Your task to perform on an android device: Is it going to rain tomorrow? Image 0: 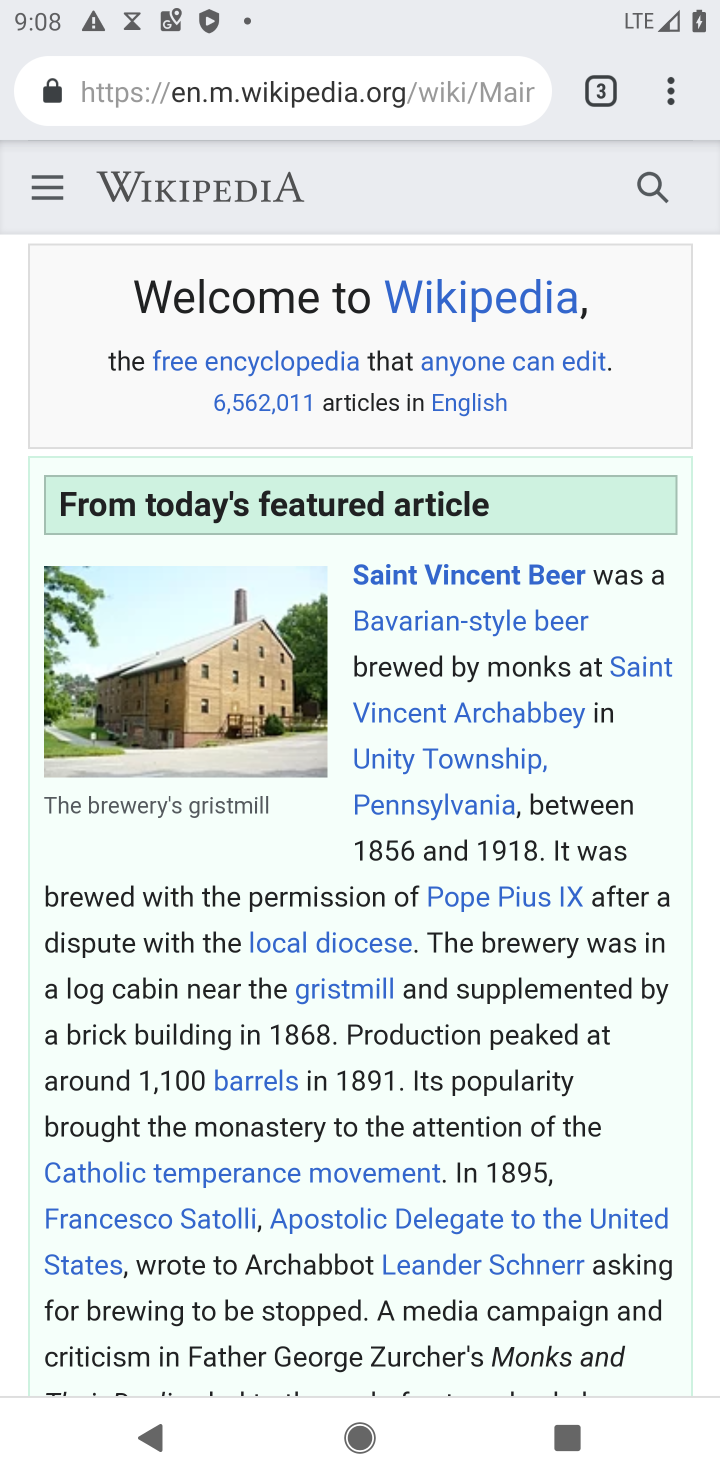
Step 0: press back button
Your task to perform on an android device: Is it going to rain tomorrow? Image 1: 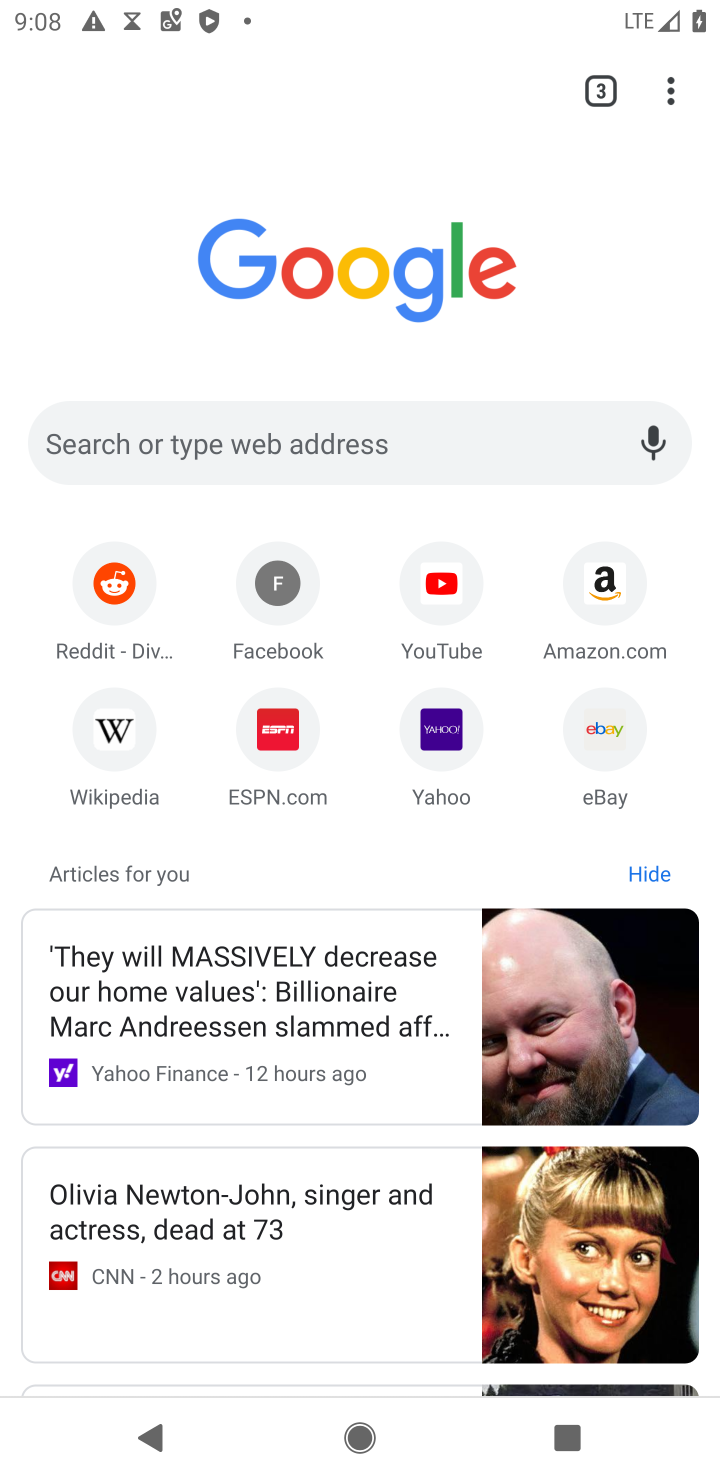
Step 1: press back button
Your task to perform on an android device: Is it going to rain tomorrow? Image 2: 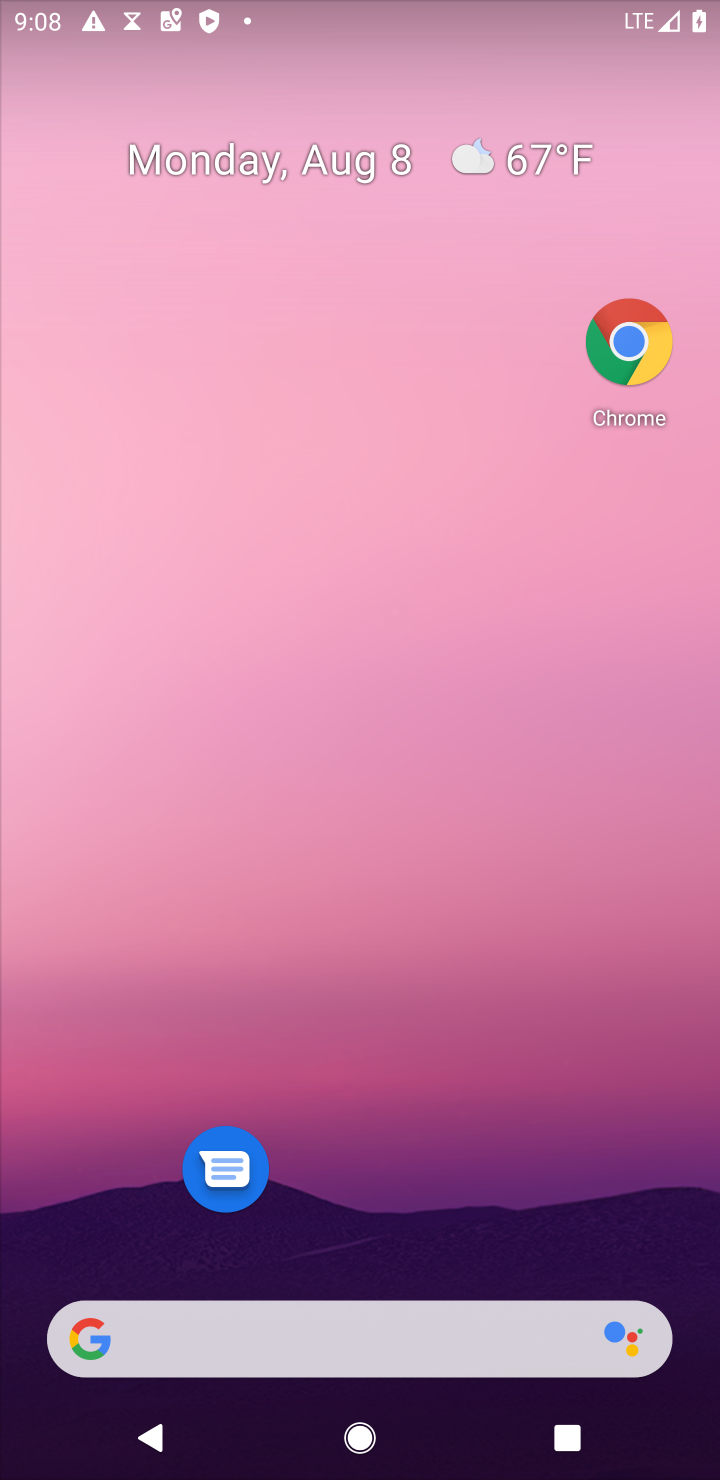
Step 2: press back button
Your task to perform on an android device: Is it going to rain tomorrow? Image 3: 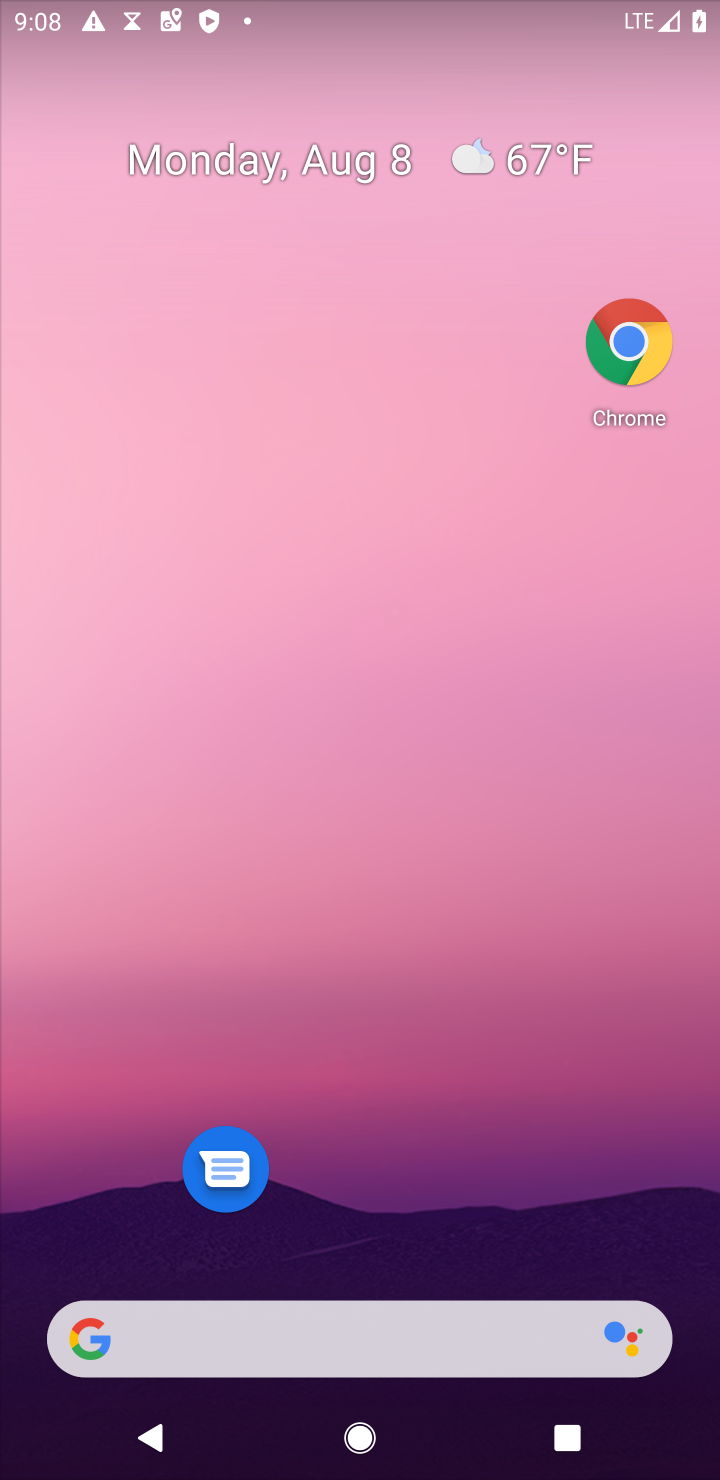
Step 3: click (286, 1318)
Your task to perform on an android device: Is it going to rain tomorrow? Image 4: 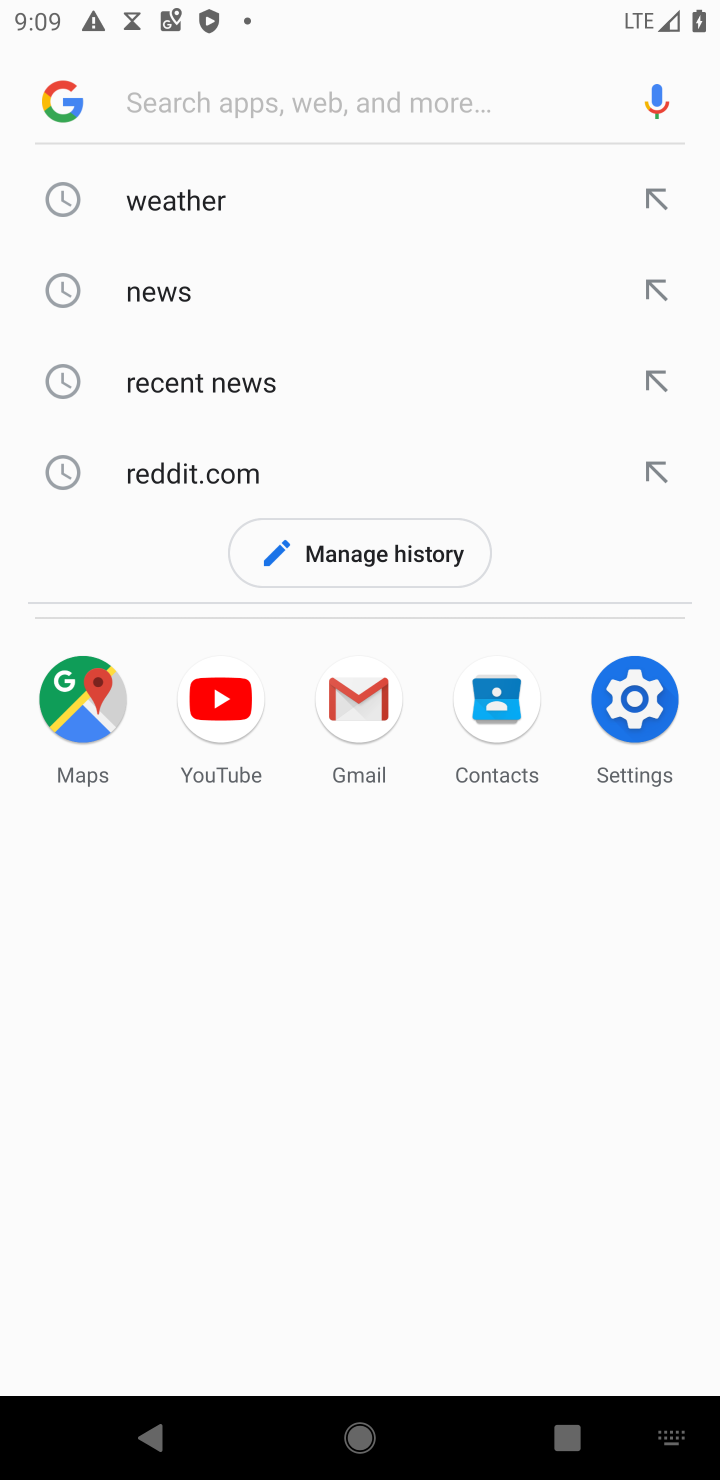
Step 4: click (194, 197)
Your task to perform on an android device: Is it going to rain tomorrow? Image 5: 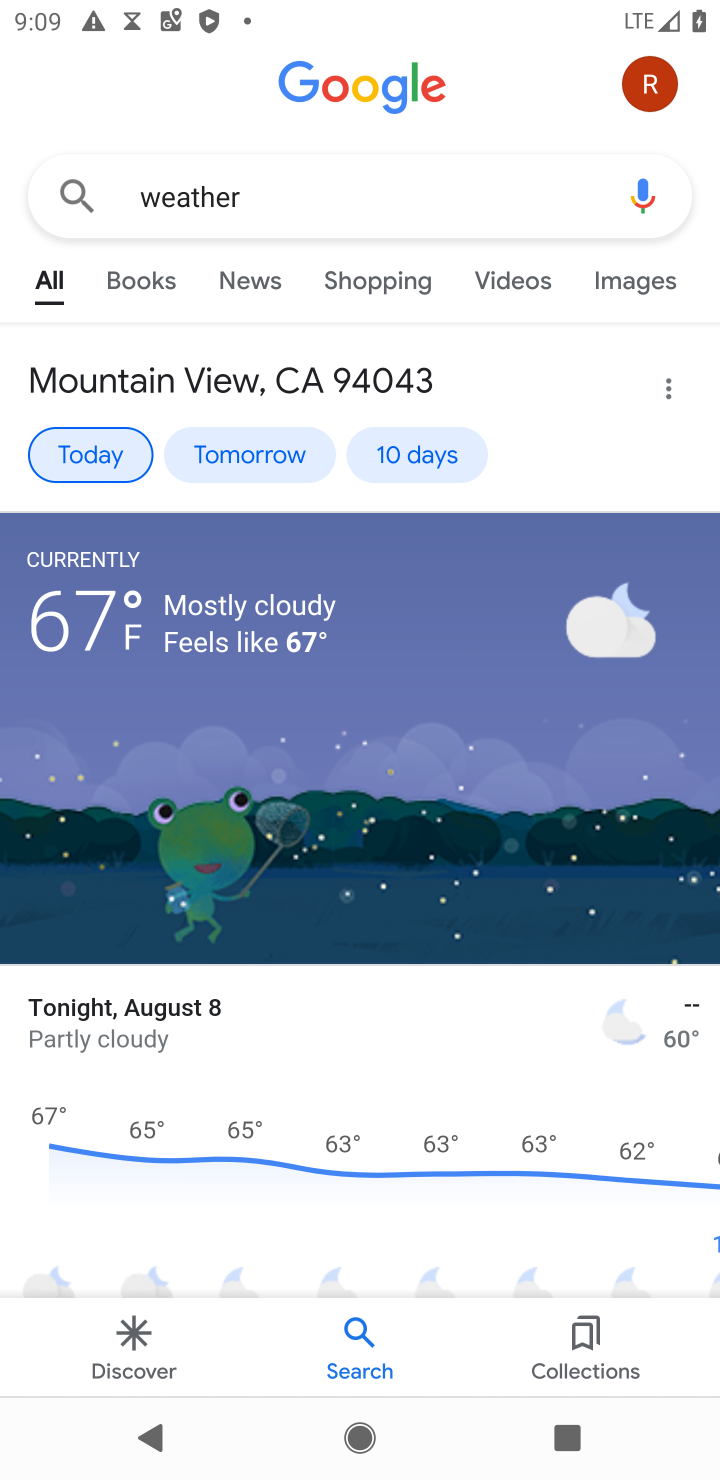
Step 5: click (243, 445)
Your task to perform on an android device: Is it going to rain tomorrow? Image 6: 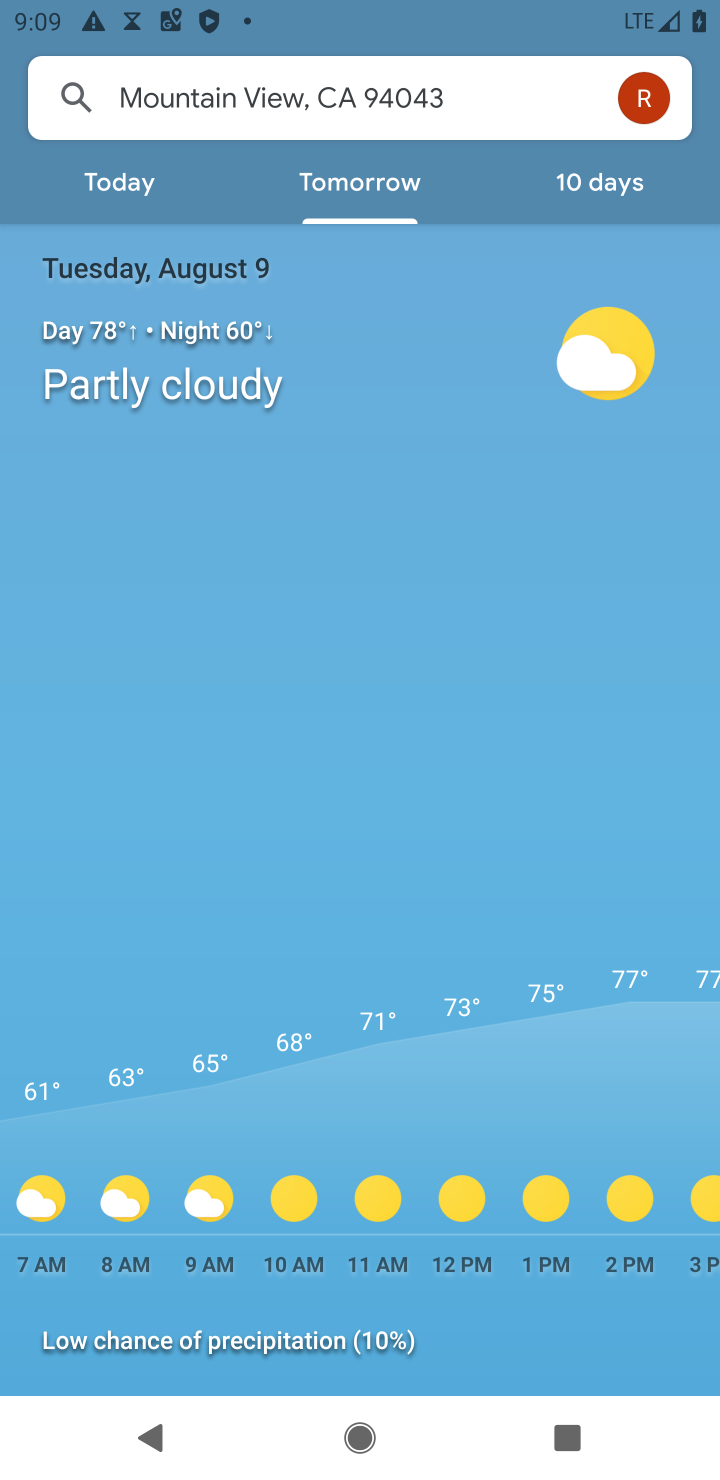
Step 6: task complete